Your task to perform on an android device: Open Google Maps and go to "Timeline" Image 0: 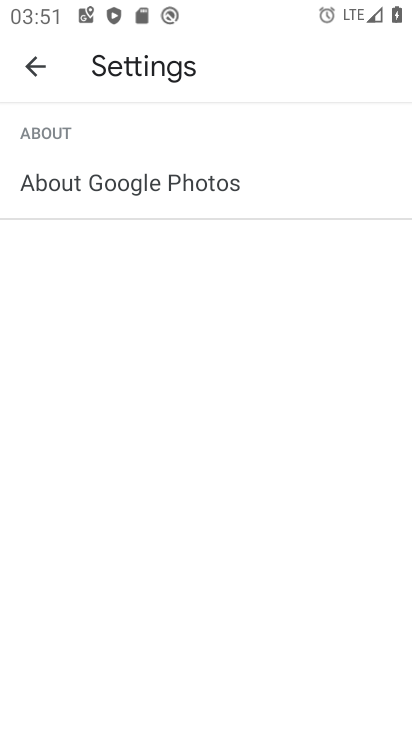
Step 0: press home button
Your task to perform on an android device: Open Google Maps and go to "Timeline" Image 1: 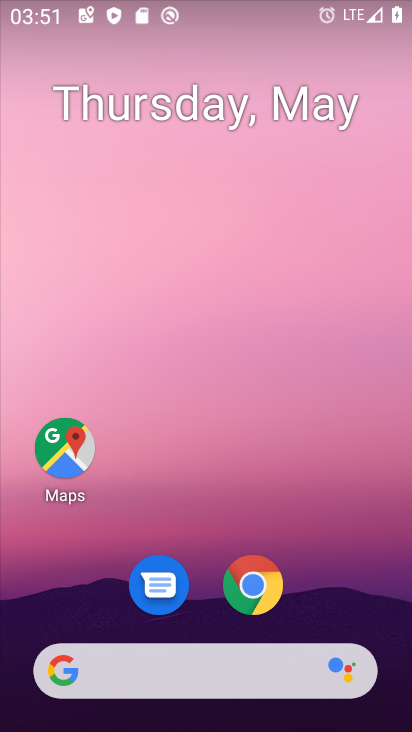
Step 1: click (59, 432)
Your task to perform on an android device: Open Google Maps and go to "Timeline" Image 2: 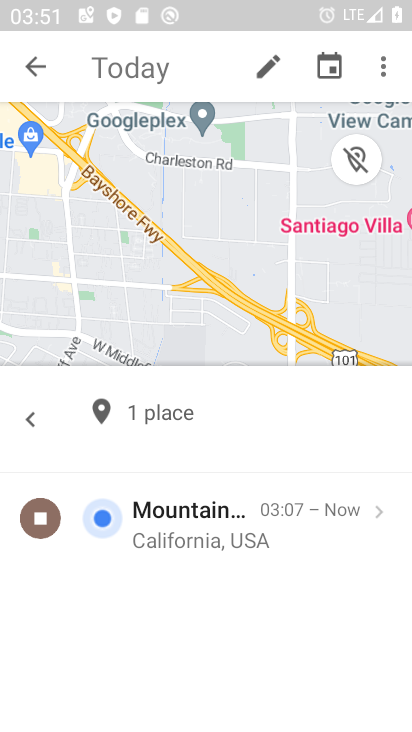
Step 2: click (46, 66)
Your task to perform on an android device: Open Google Maps and go to "Timeline" Image 3: 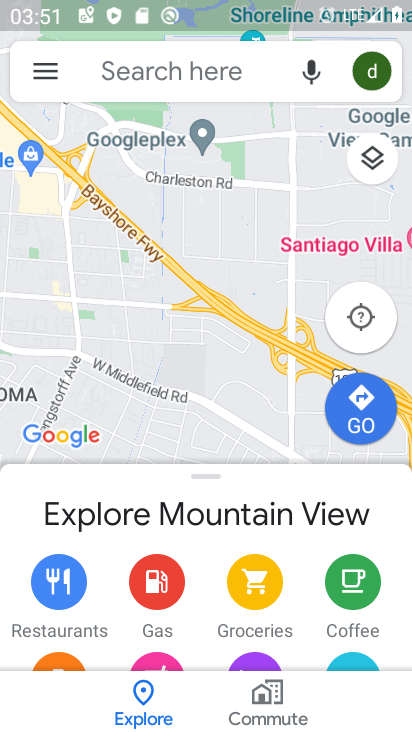
Step 3: click (46, 68)
Your task to perform on an android device: Open Google Maps and go to "Timeline" Image 4: 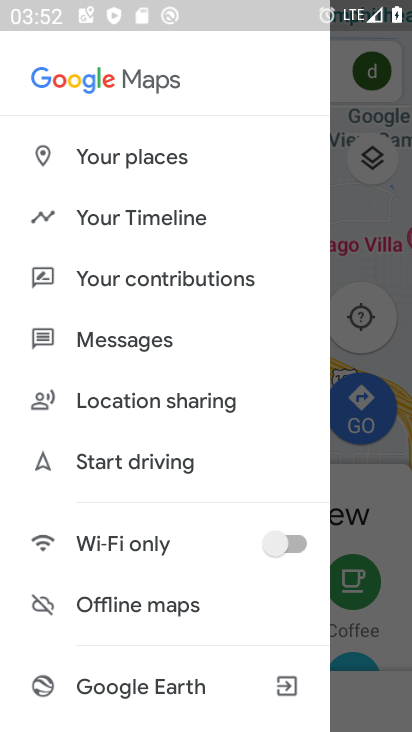
Step 4: click (120, 209)
Your task to perform on an android device: Open Google Maps and go to "Timeline" Image 5: 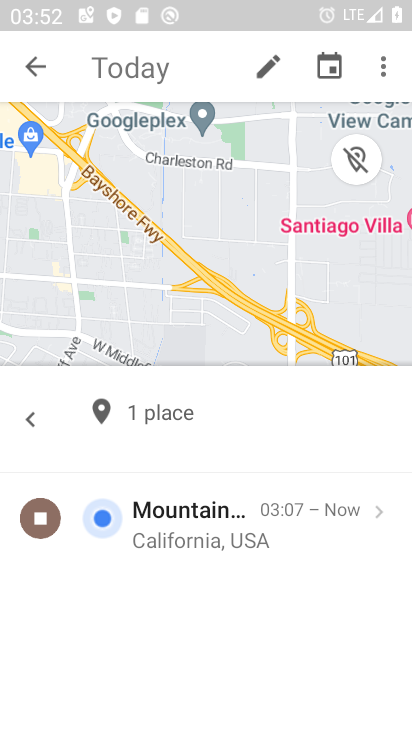
Step 5: task complete